Your task to perform on an android device: Do I have any events tomorrow? Image 0: 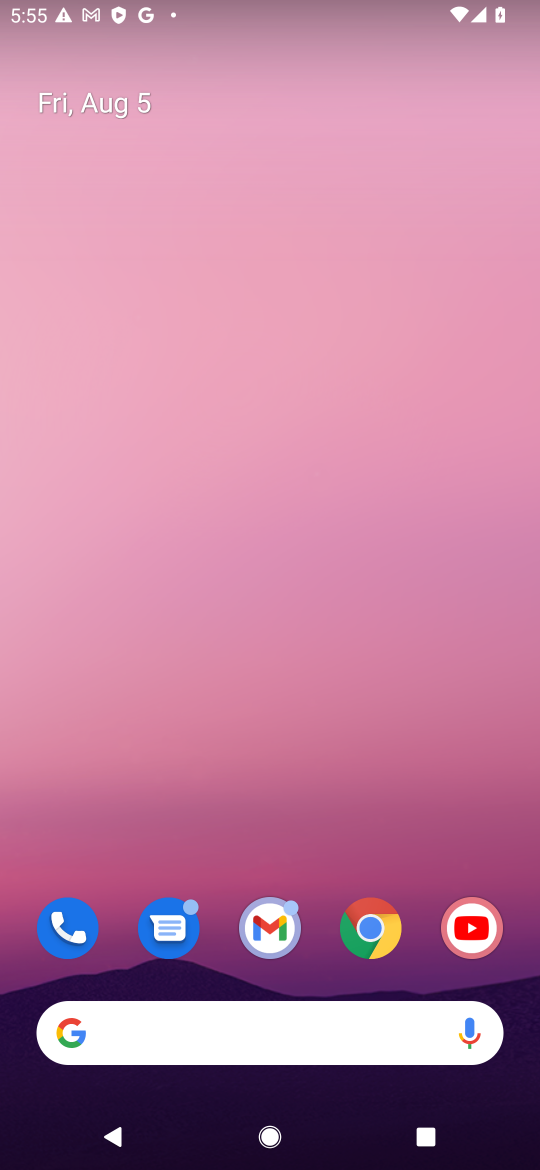
Step 0: drag from (300, 999) to (270, 53)
Your task to perform on an android device: Do I have any events tomorrow? Image 1: 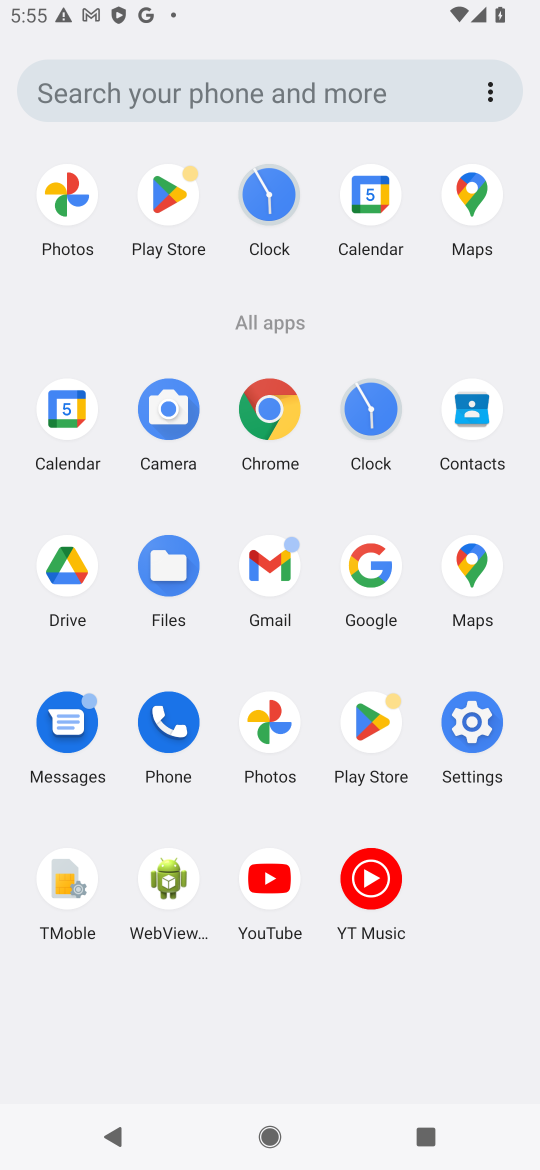
Step 1: click (474, 428)
Your task to perform on an android device: Do I have any events tomorrow? Image 2: 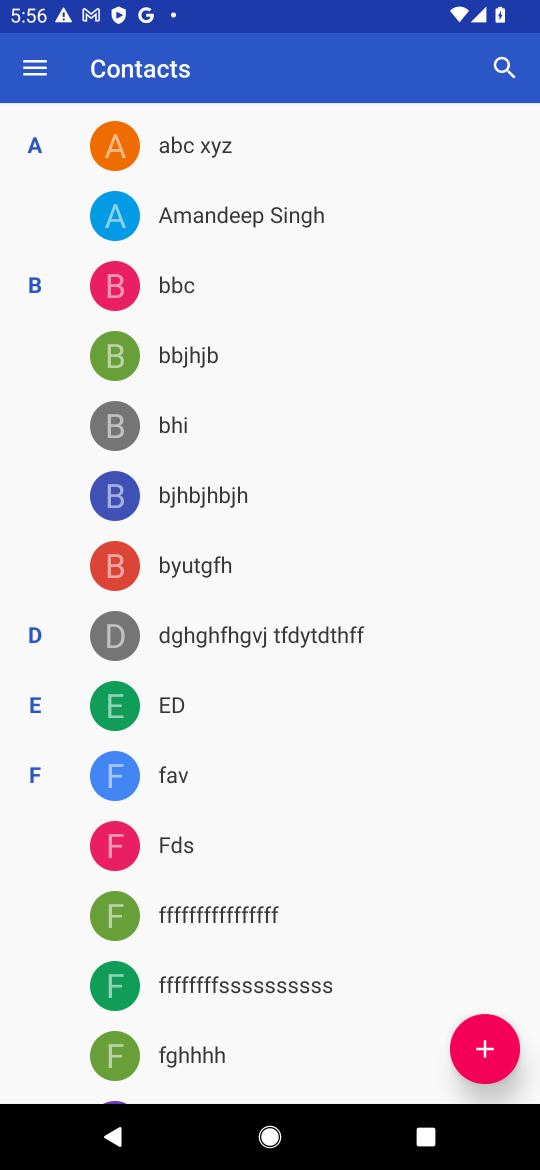
Step 2: press home button
Your task to perform on an android device: Do I have any events tomorrow? Image 3: 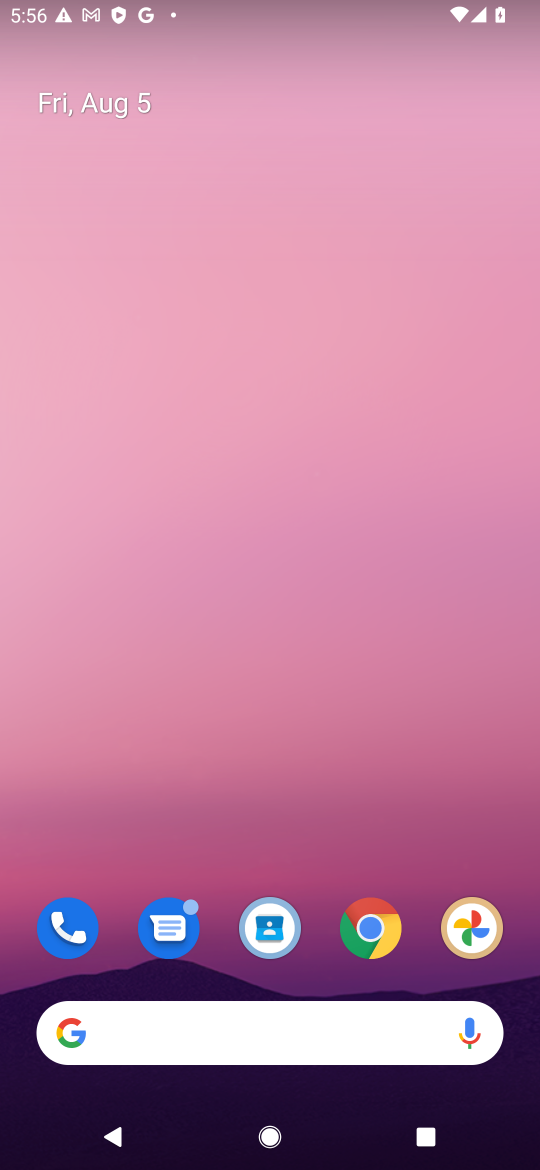
Step 3: drag from (340, 1014) to (362, 220)
Your task to perform on an android device: Do I have any events tomorrow? Image 4: 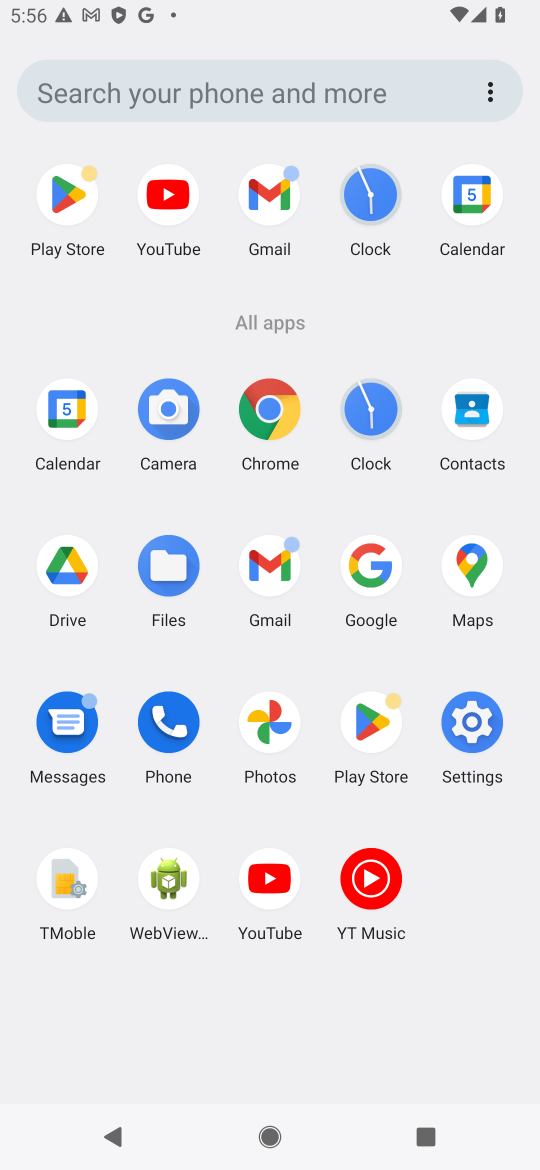
Step 4: click (485, 190)
Your task to perform on an android device: Do I have any events tomorrow? Image 5: 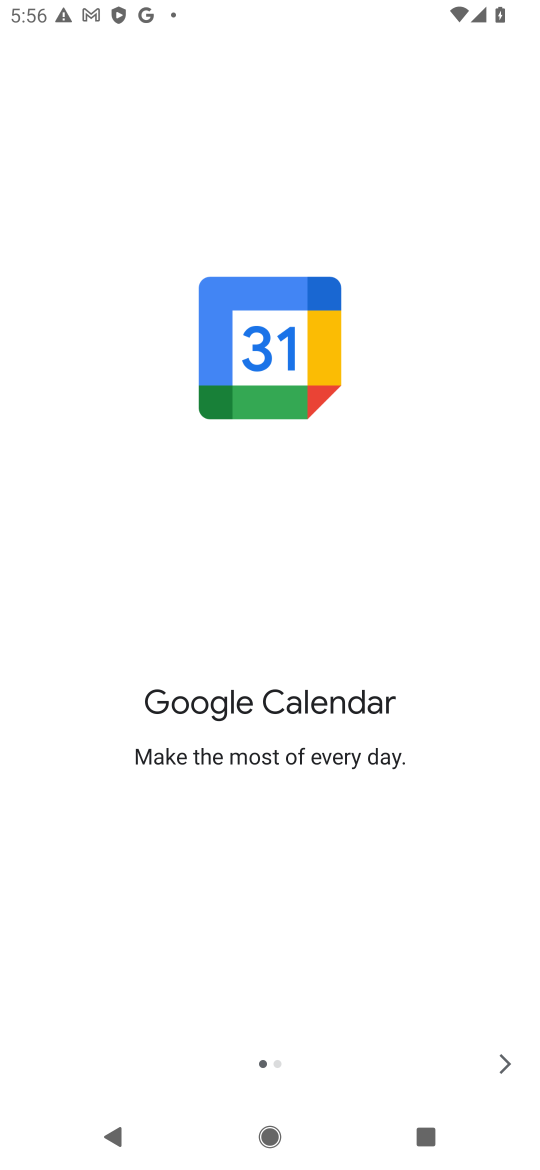
Step 5: click (505, 1053)
Your task to perform on an android device: Do I have any events tomorrow? Image 6: 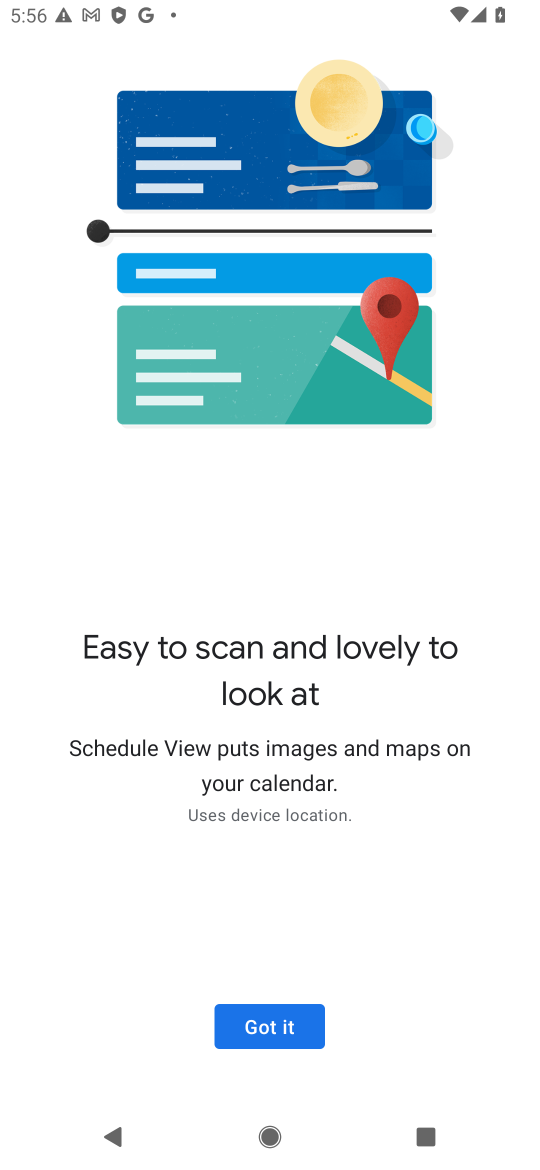
Step 6: click (237, 1025)
Your task to perform on an android device: Do I have any events tomorrow? Image 7: 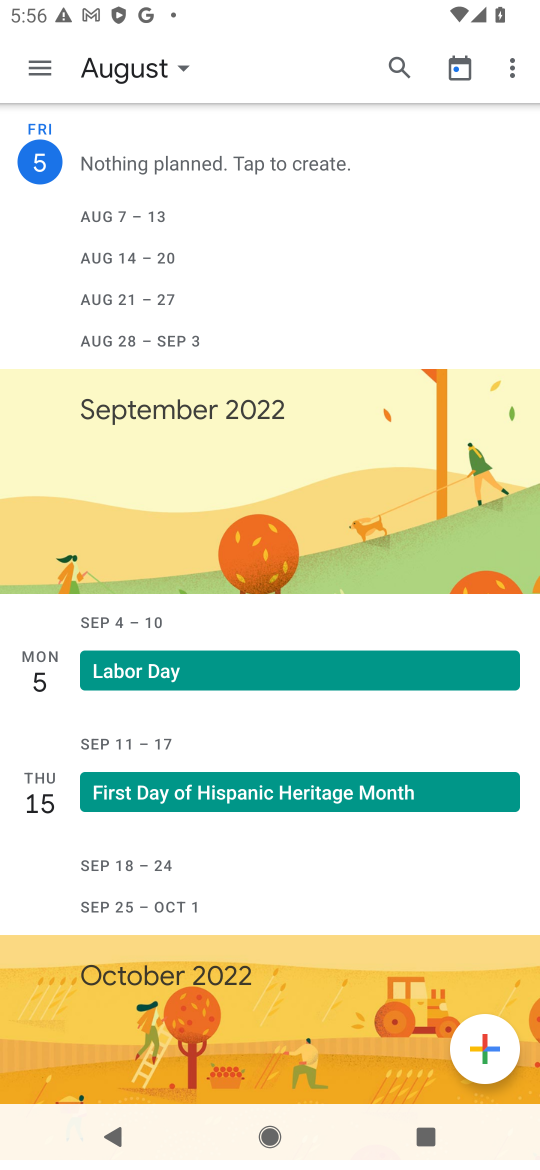
Step 7: click (50, 674)
Your task to perform on an android device: Do I have any events tomorrow? Image 8: 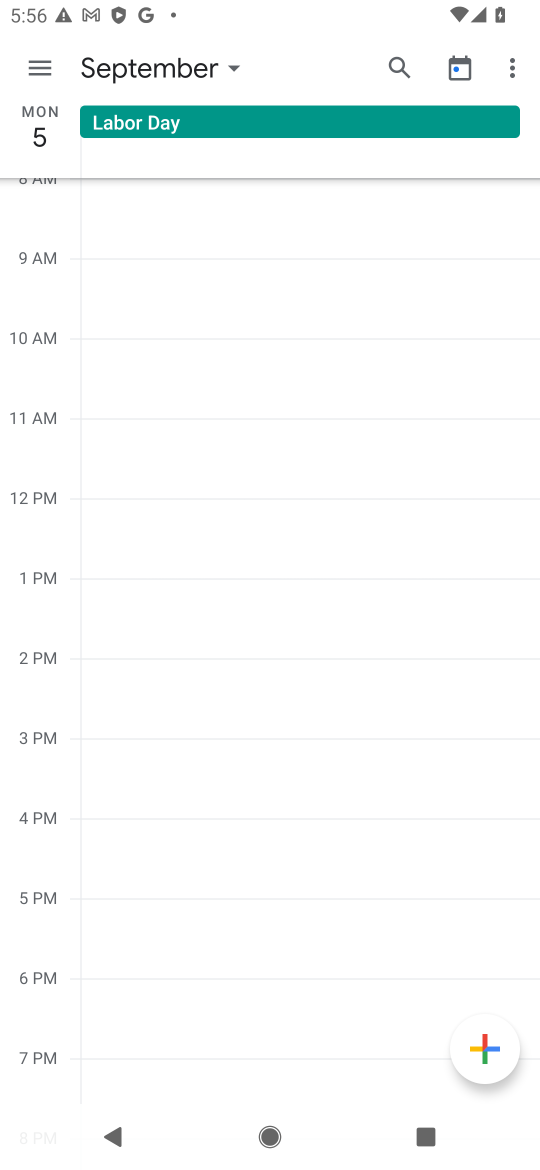
Step 8: click (456, 50)
Your task to perform on an android device: Do I have any events tomorrow? Image 9: 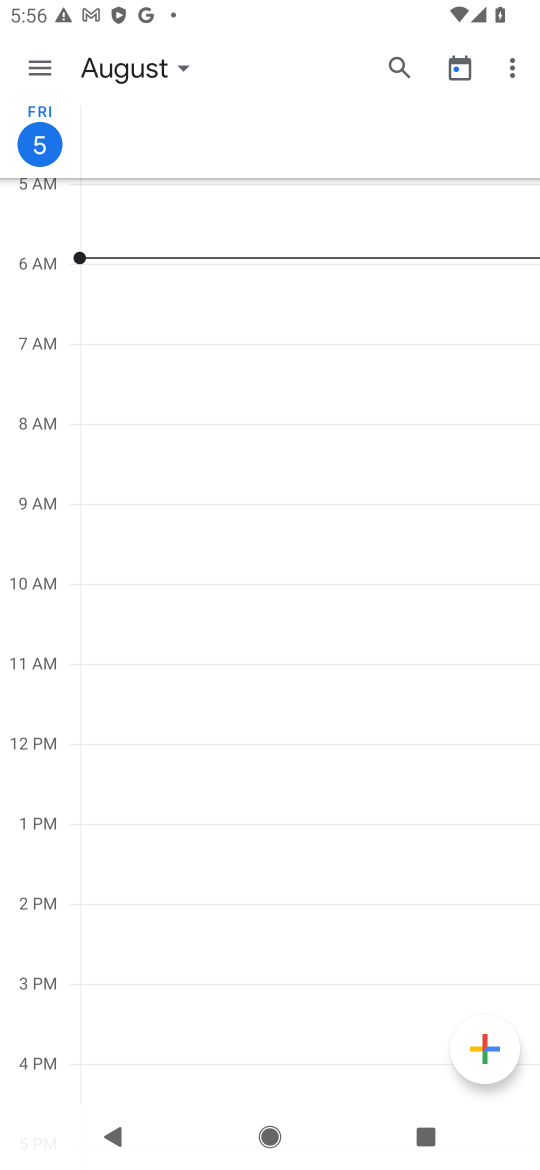
Step 9: click (50, 66)
Your task to perform on an android device: Do I have any events tomorrow? Image 10: 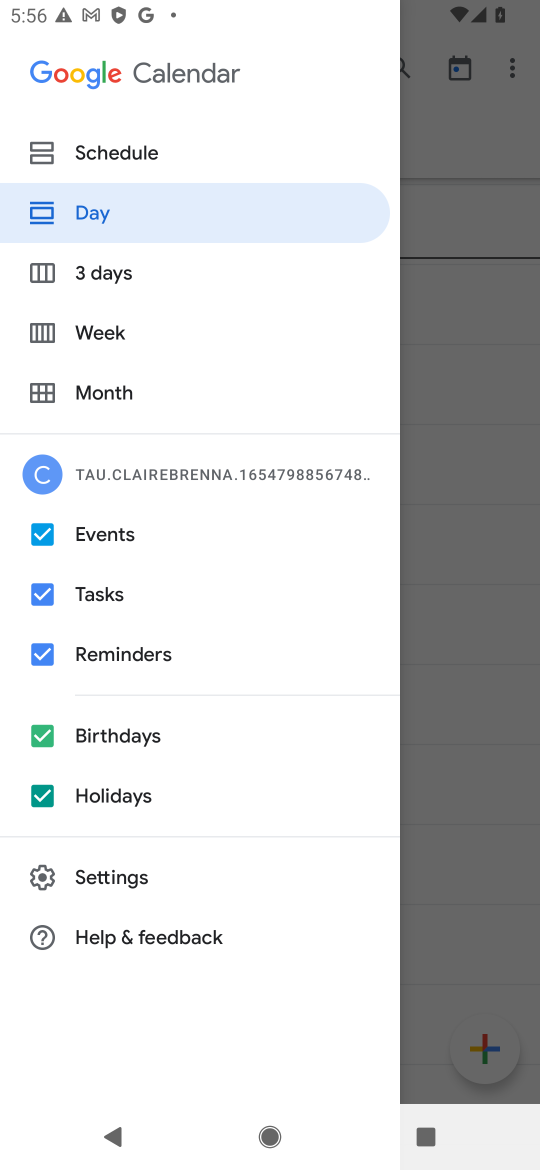
Step 10: click (104, 325)
Your task to perform on an android device: Do I have any events tomorrow? Image 11: 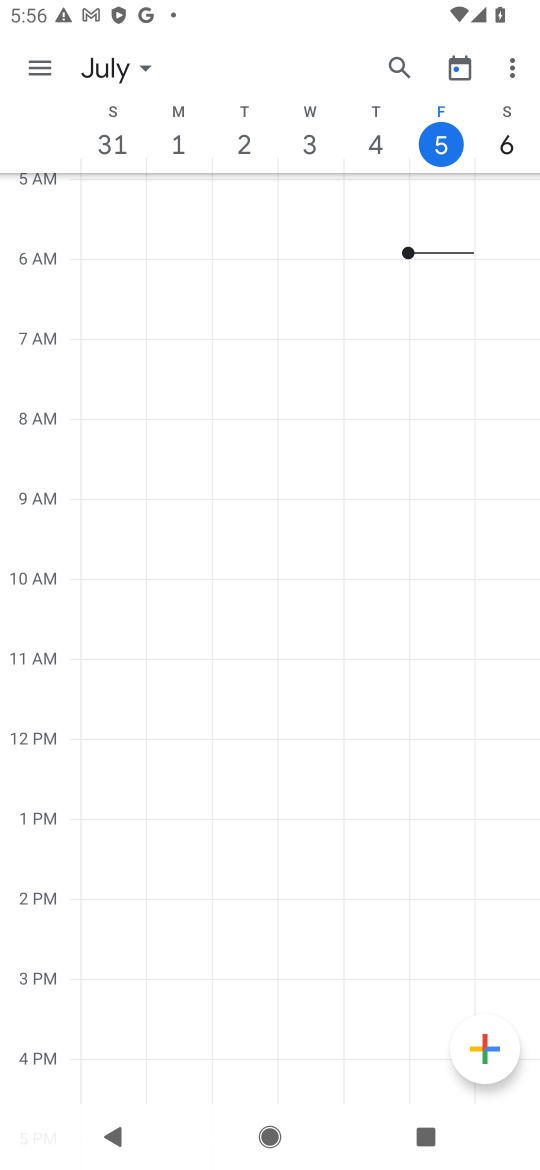
Step 11: click (508, 140)
Your task to perform on an android device: Do I have any events tomorrow? Image 12: 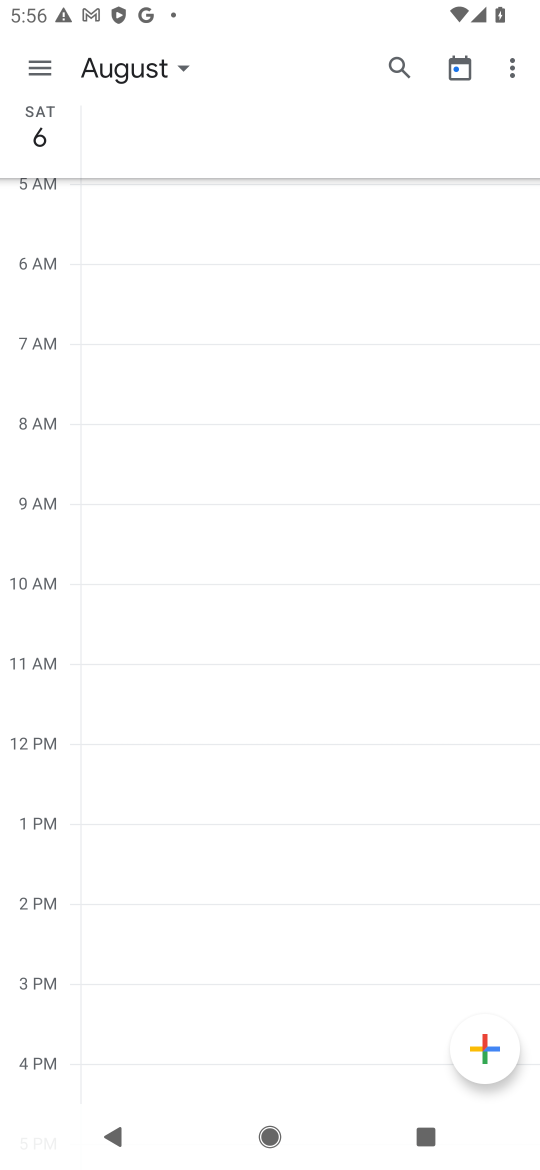
Step 12: task complete